Your task to perform on an android device: Go to Android settings Image 0: 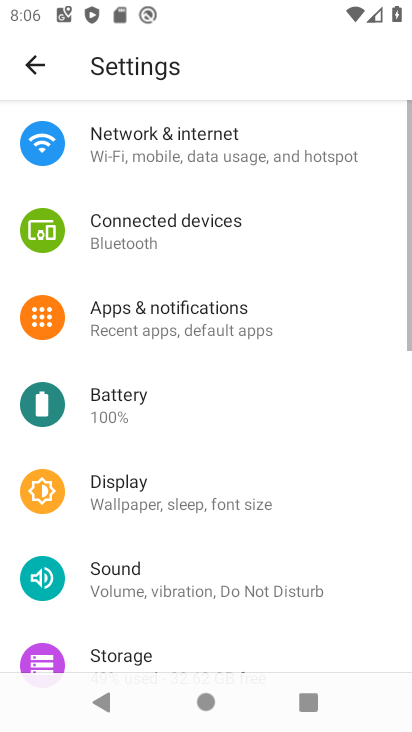
Step 0: drag from (270, 529) to (359, 187)
Your task to perform on an android device: Go to Android settings Image 1: 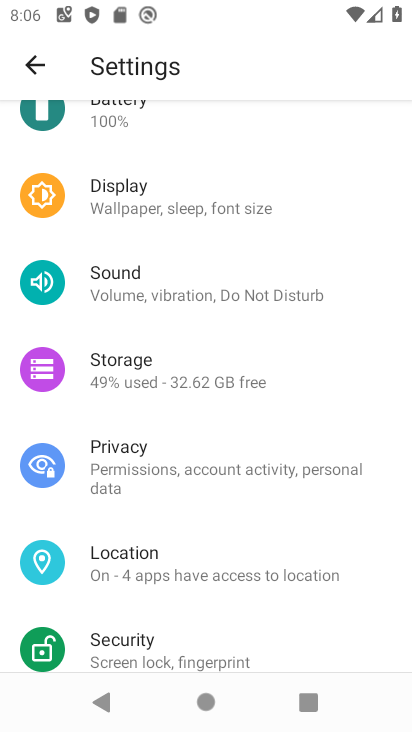
Step 1: drag from (256, 399) to (315, 189)
Your task to perform on an android device: Go to Android settings Image 2: 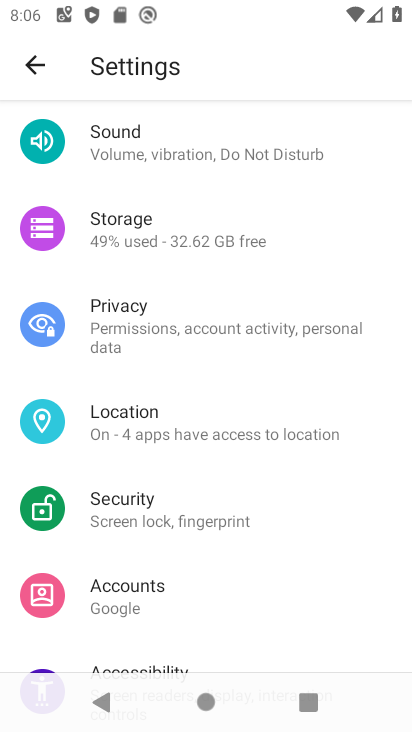
Step 2: drag from (263, 547) to (336, 241)
Your task to perform on an android device: Go to Android settings Image 3: 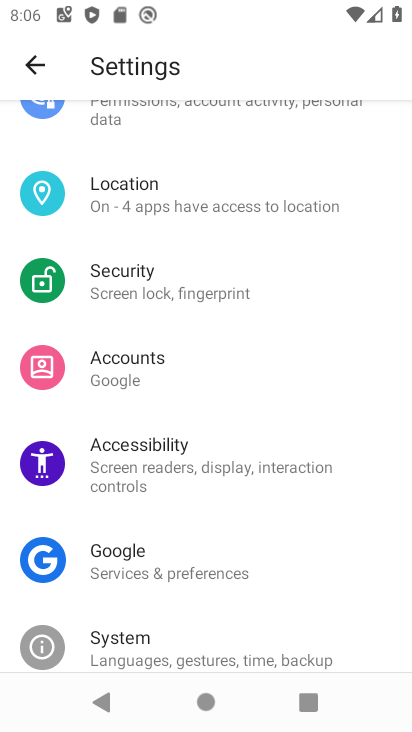
Step 3: drag from (255, 543) to (336, 213)
Your task to perform on an android device: Go to Android settings Image 4: 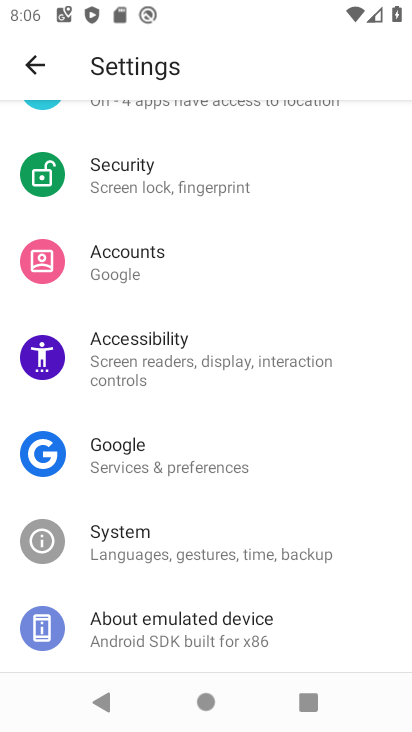
Step 4: drag from (272, 435) to (315, 254)
Your task to perform on an android device: Go to Android settings Image 5: 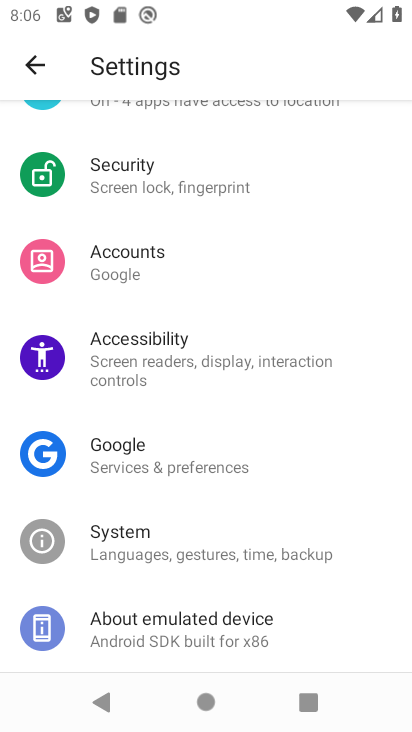
Step 5: click (247, 622)
Your task to perform on an android device: Go to Android settings Image 6: 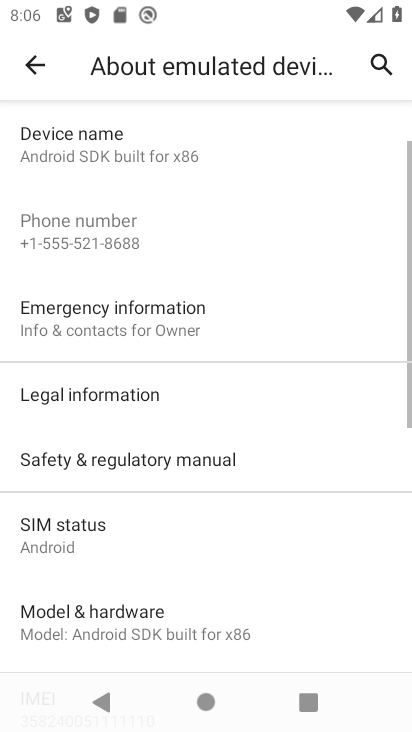
Step 6: drag from (256, 582) to (345, 273)
Your task to perform on an android device: Go to Android settings Image 7: 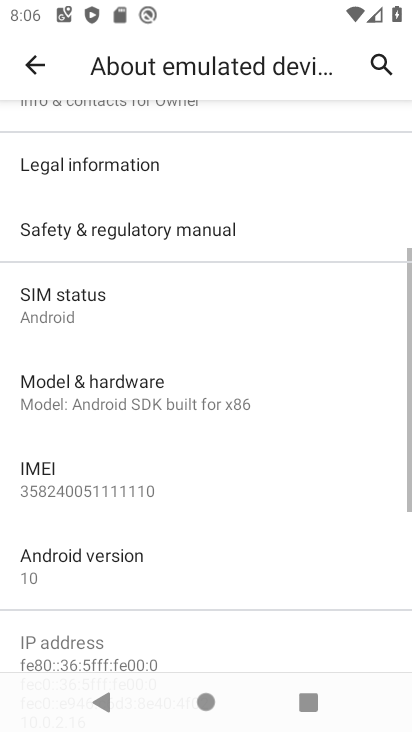
Step 7: click (267, 559)
Your task to perform on an android device: Go to Android settings Image 8: 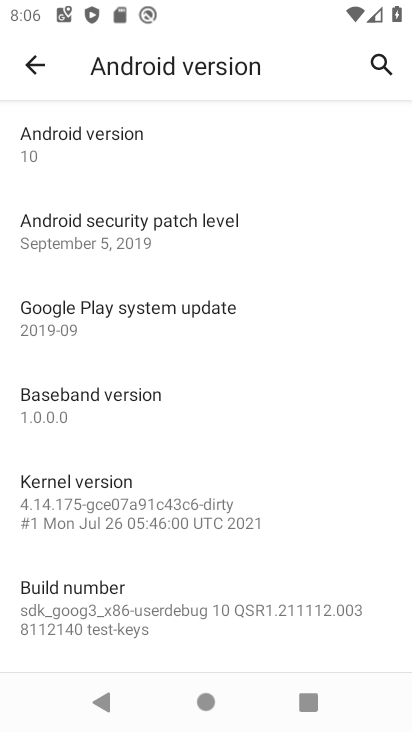
Step 8: task complete